Your task to perform on an android device: Empty the shopping cart on ebay. Add "macbook" to the cart on ebay Image 0: 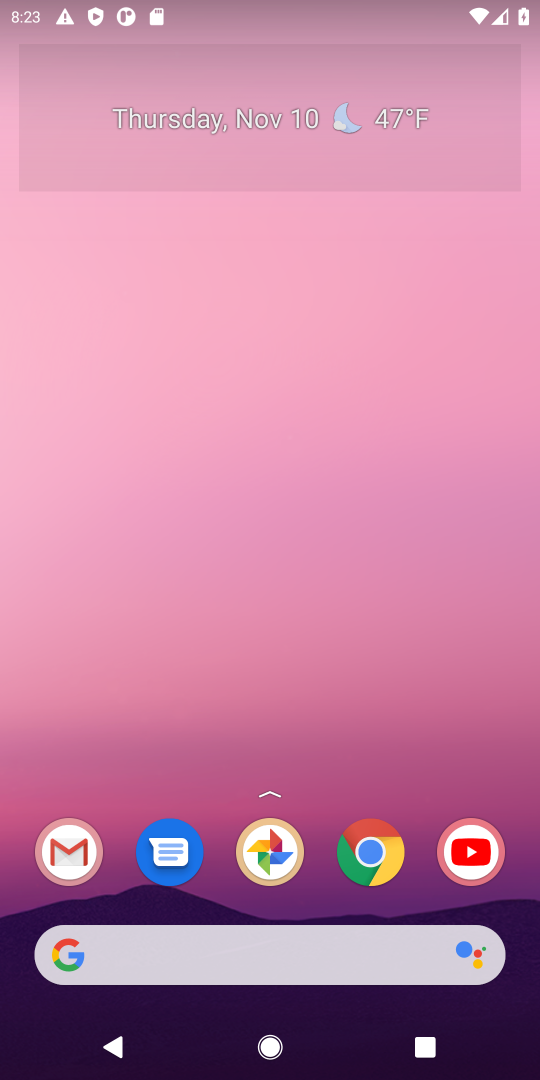
Step 0: press home button
Your task to perform on an android device: Empty the shopping cart on ebay. Add "macbook" to the cart on ebay Image 1: 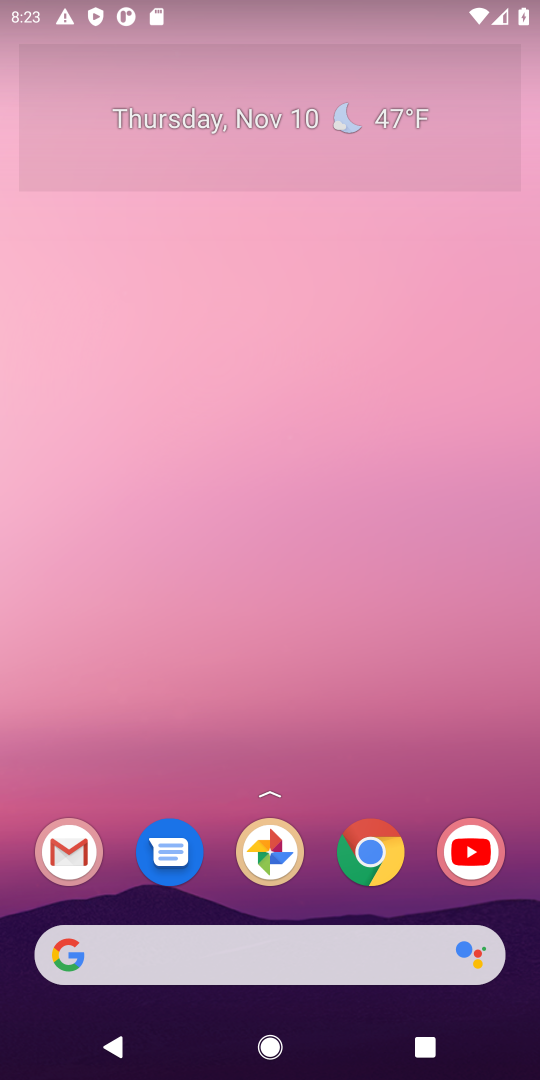
Step 1: click (372, 851)
Your task to perform on an android device: Empty the shopping cart on ebay. Add "macbook" to the cart on ebay Image 2: 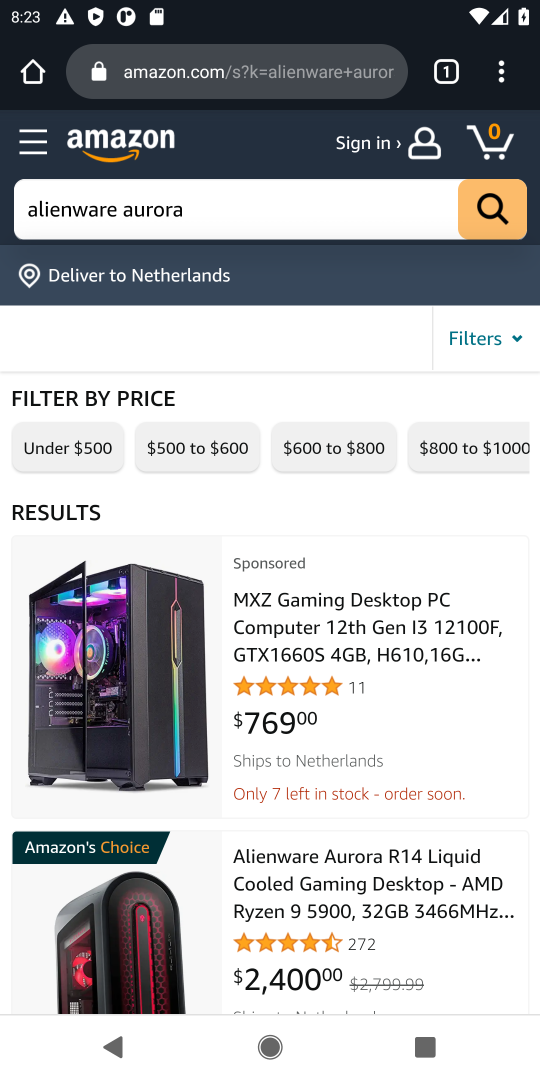
Step 2: click (257, 67)
Your task to perform on an android device: Empty the shopping cart on ebay. Add "macbook" to the cart on ebay Image 3: 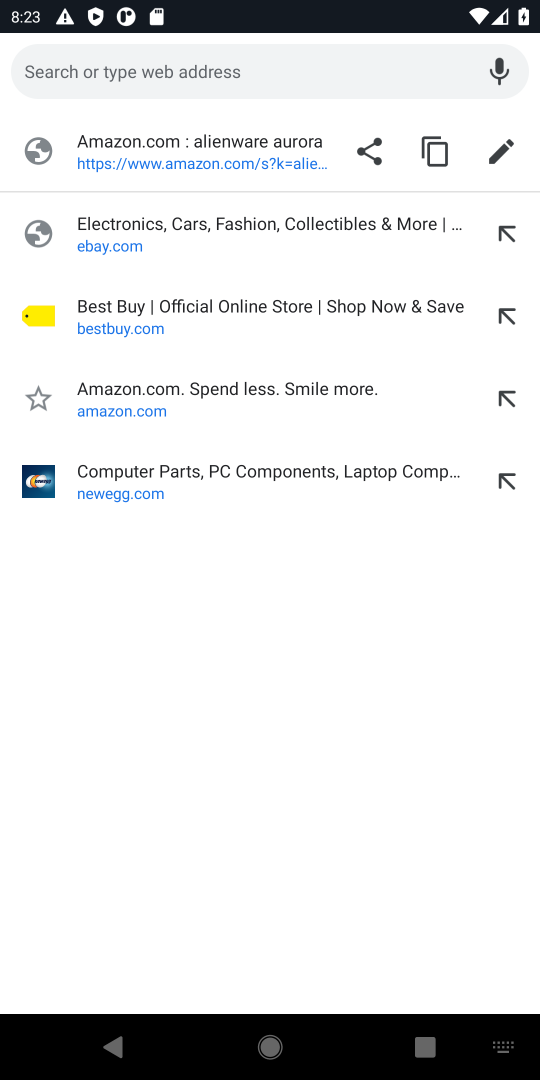
Step 3: type "ebay"
Your task to perform on an android device: Empty the shopping cart on ebay. Add "macbook" to the cart on ebay Image 4: 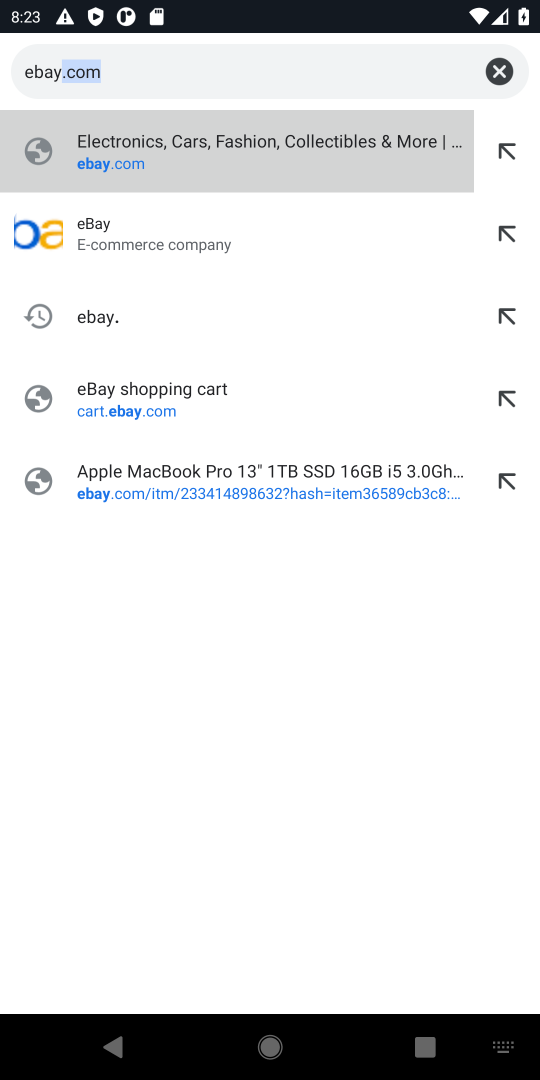
Step 4: press enter
Your task to perform on an android device: Empty the shopping cart on ebay. Add "macbook" to the cart on ebay Image 5: 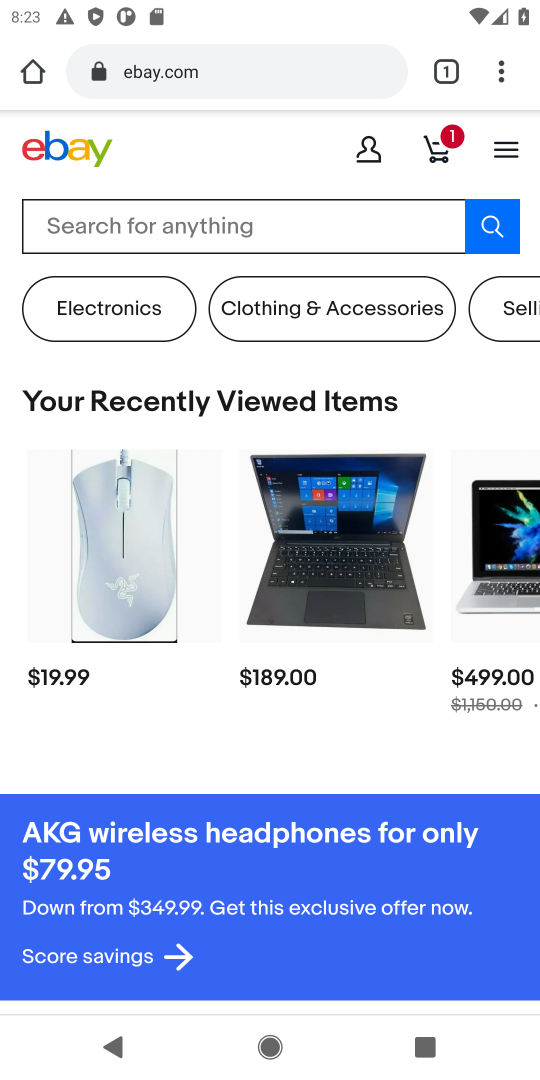
Step 5: click (335, 233)
Your task to perform on an android device: Empty the shopping cart on ebay. Add "macbook" to the cart on ebay Image 6: 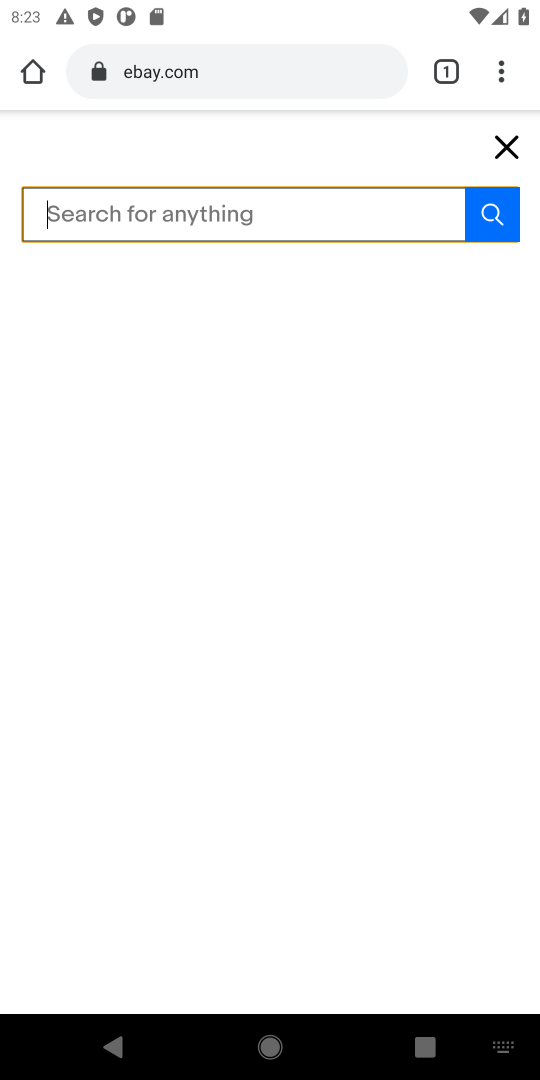
Step 6: type "macbook"
Your task to perform on an android device: Empty the shopping cart on ebay. Add "macbook" to the cart on ebay Image 7: 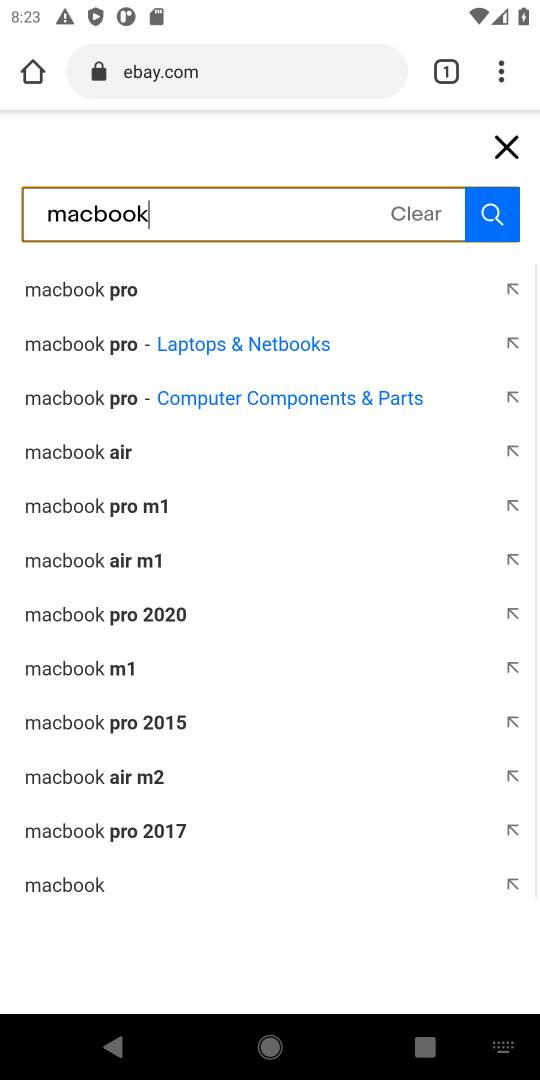
Step 7: press enter
Your task to perform on an android device: Empty the shopping cart on ebay. Add "macbook" to the cart on ebay Image 8: 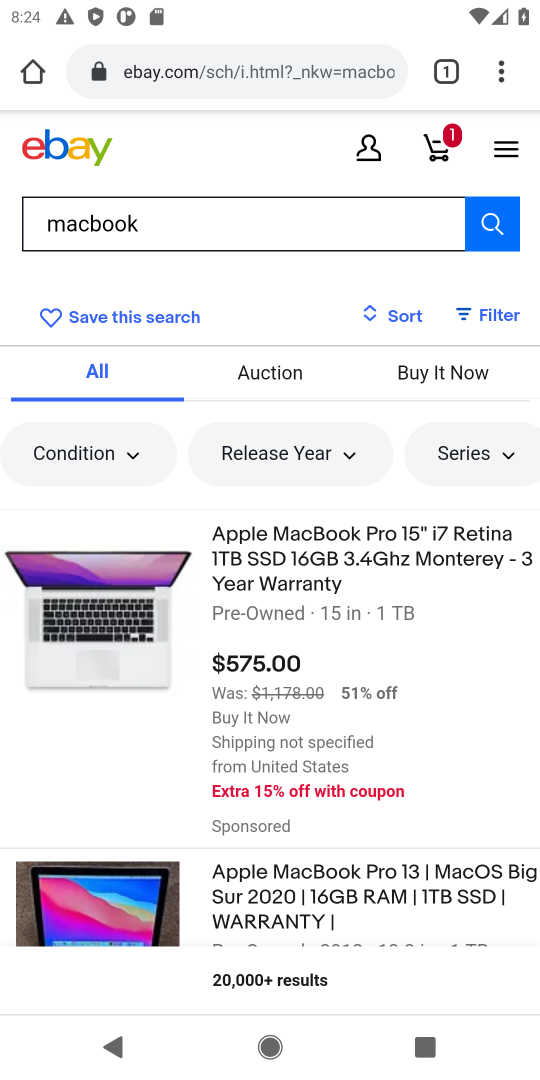
Step 8: click (333, 561)
Your task to perform on an android device: Empty the shopping cart on ebay. Add "macbook" to the cart on ebay Image 9: 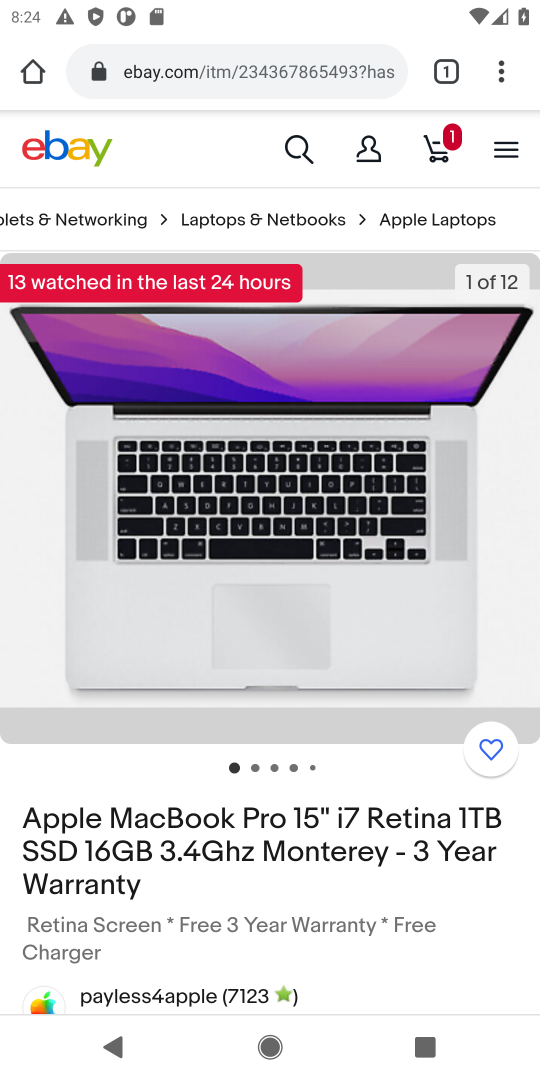
Step 9: drag from (348, 937) to (375, 477)
Your task to perform on an android device: Empty the shopping cart on ebay. Add "macbook" to the cart on ebay Image 10: 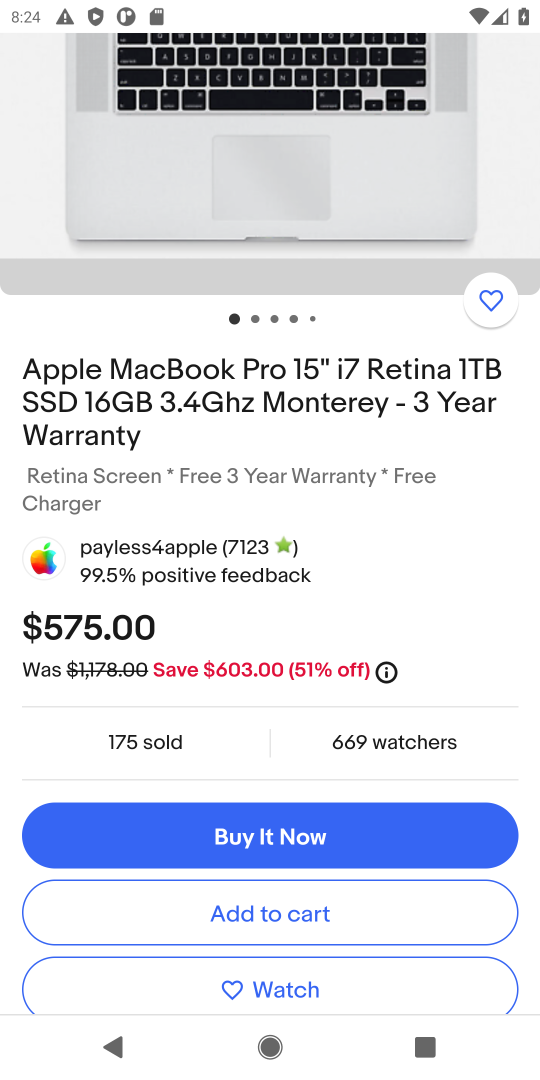
Step 10: click (305, 913)
Your task to perform on an android device: Empty the shopping cart on ebay. Add "macbook" to the cart on ebay Image 11: 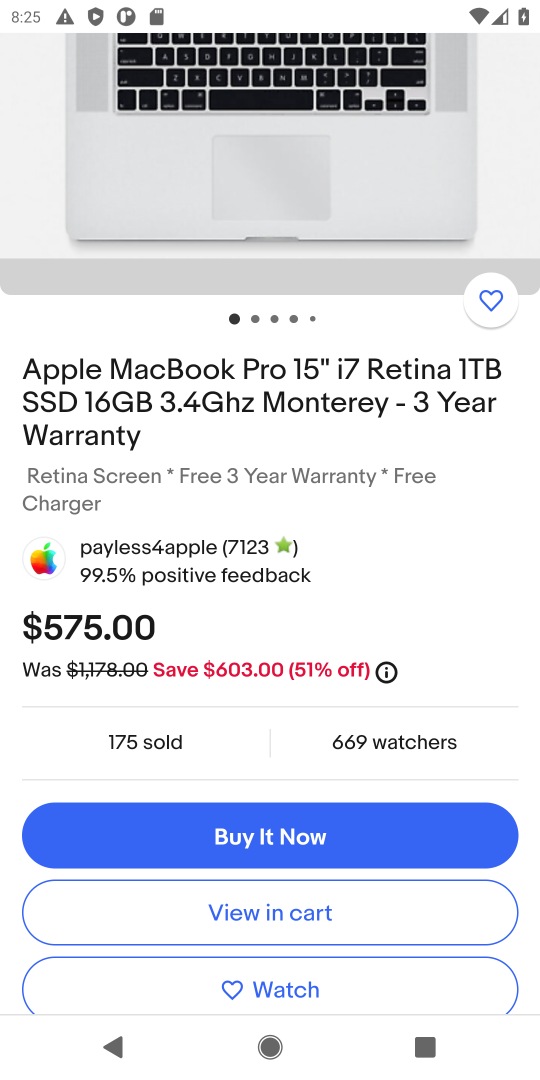
Step 11: drag from (383, 481) to (437, 1025)
Your task to perform on an android device: Empty the shopping cart on ebay. Add "macbook" to the cart on ebay Image 12: 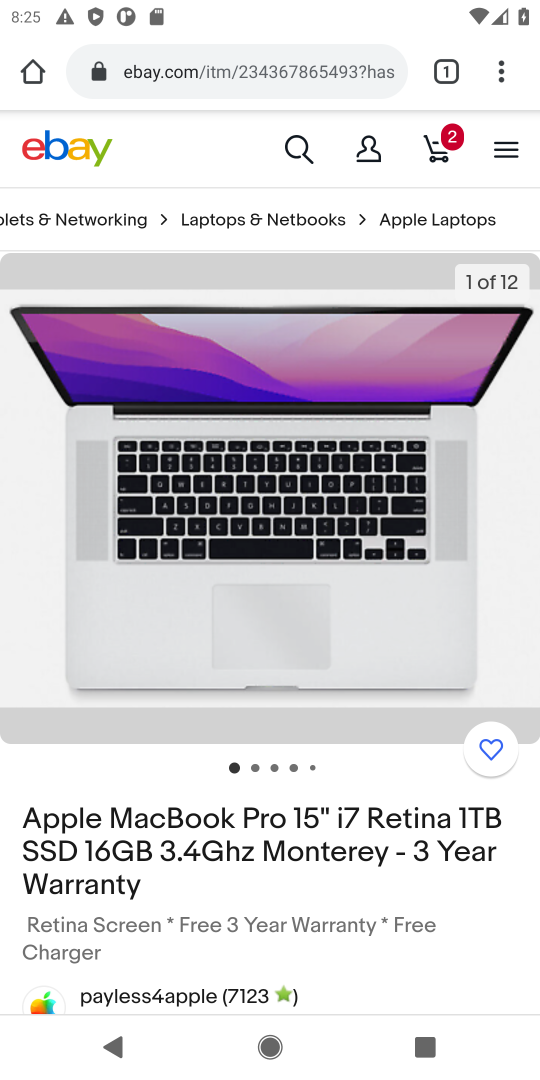
Step 12: click (433, 151)
Your task to perform on an android device: Empty the shopping cart on ebay. Add "macbook" to the cart on ebay Image 13: 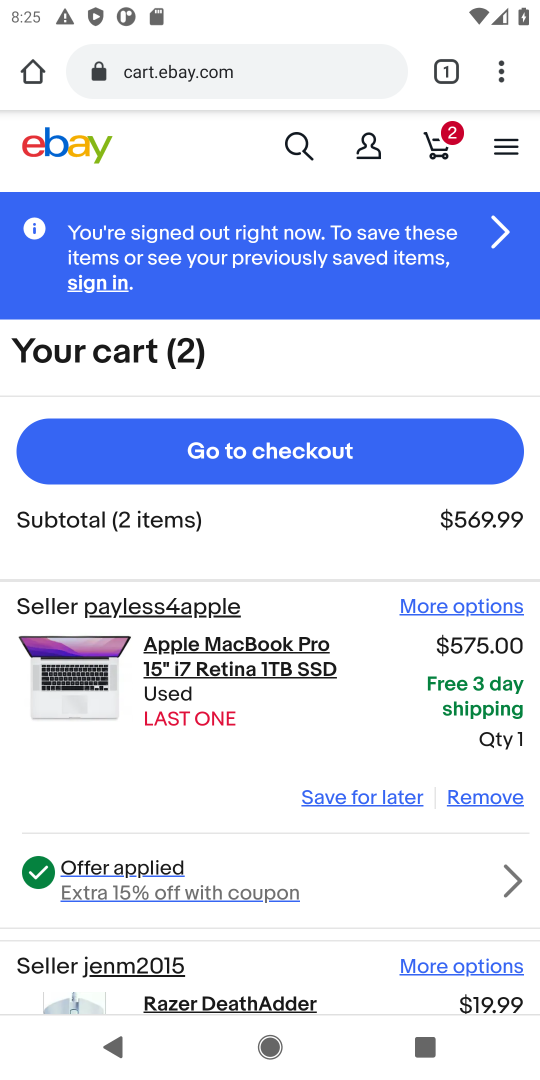
Step 13: drag from (262, 829) to (402, 417)
Your task to perform on an android device: Empty the shopping cart on ebay. Add "macbook" to the cart on ebay Image 14: 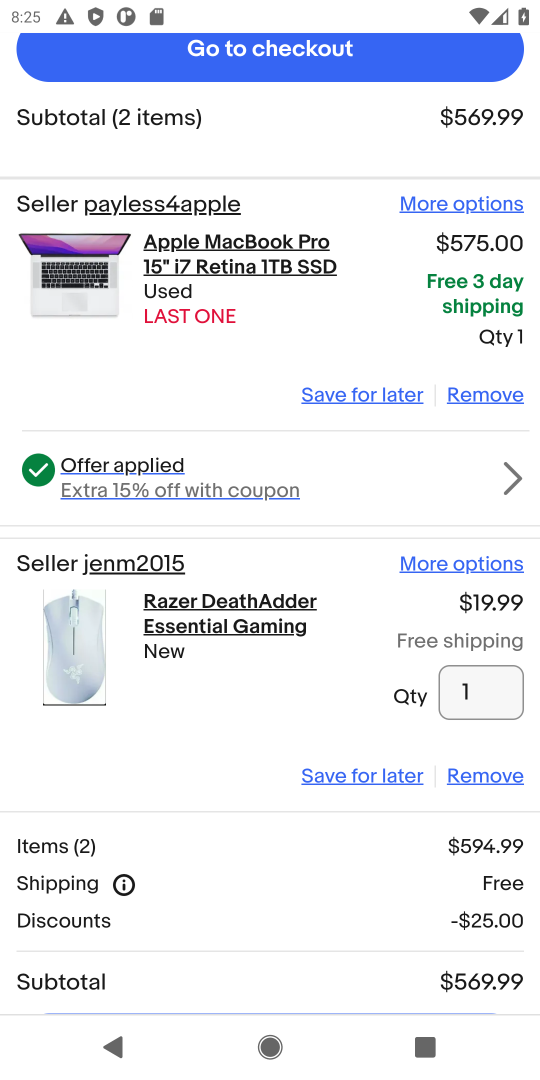
Step 14: click (481, 784)
Your task to perform on an android device: Empty the shopping cart on ebay. Add "macbook" to the cart on ebay Image 15: 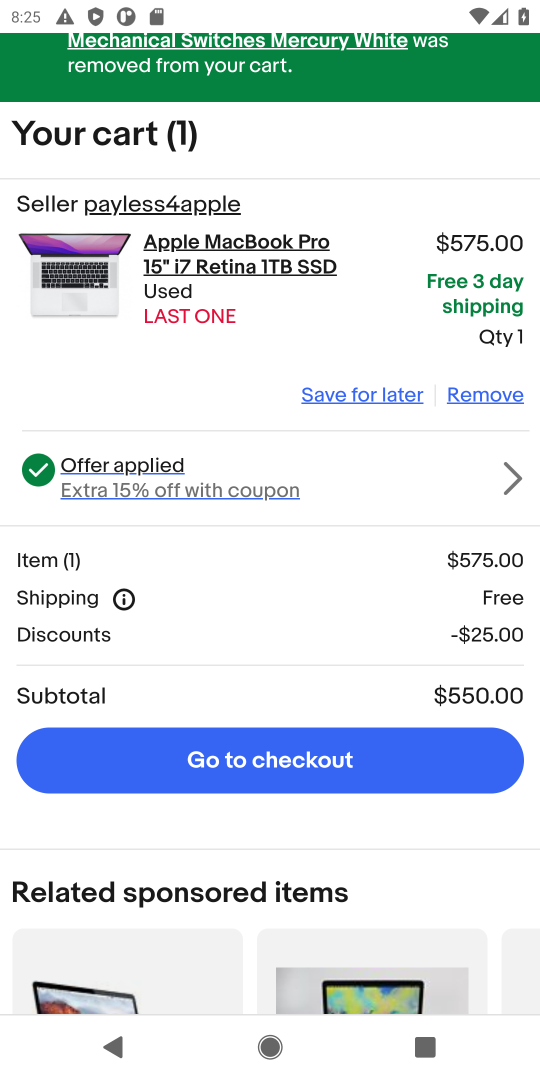
Step 15: task complete